Your task to perform on an android device: turn off location Image 0: 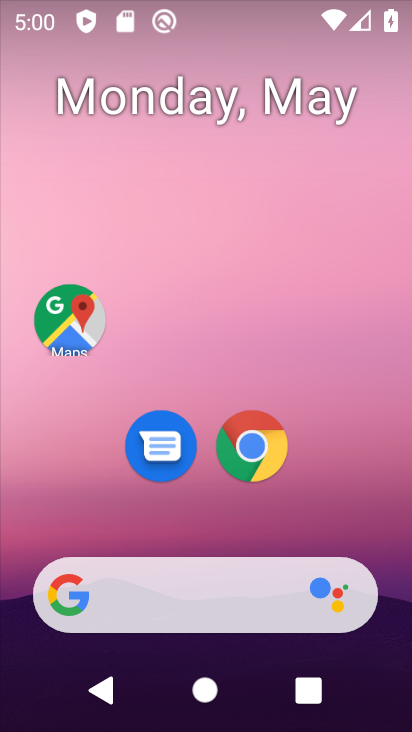
Step 0: drag from (327, 512) to (234, 89)
Your task to perform on an android device: turn off location Image 1: 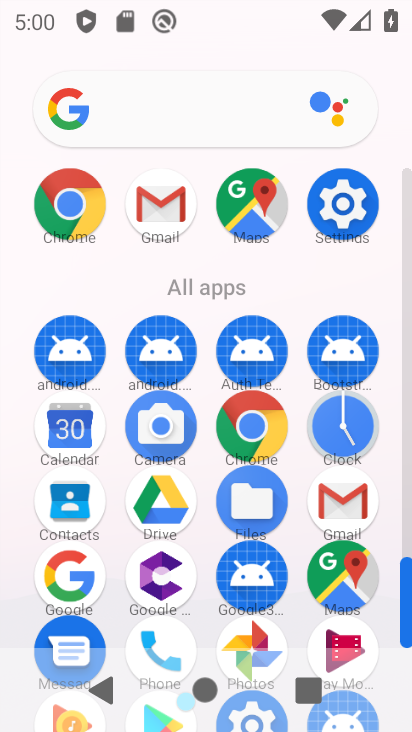
Step 1: click (335, 205)
Your task to perform on an android device: turn off location Image 2: 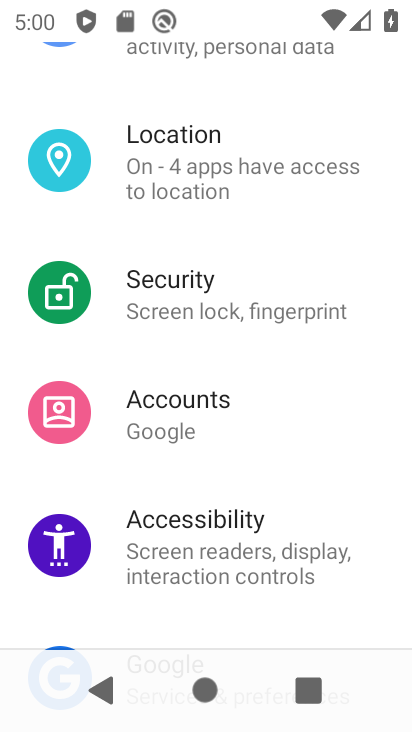
Step 2: click (172, 133)
Your task to perform on an android device: turn off location Image 3: 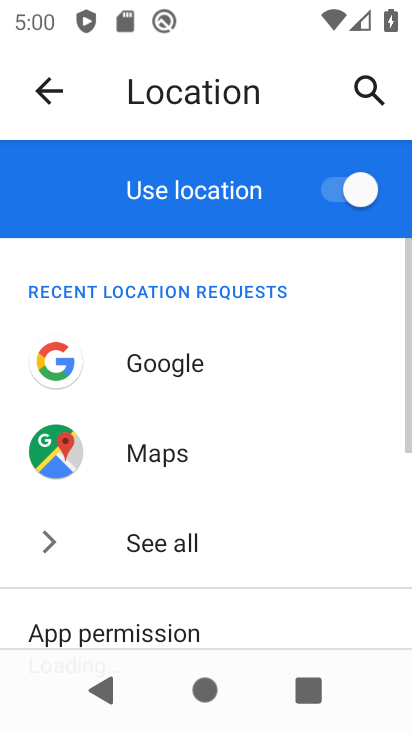
Step 3: click (353, 195)
Your task to perform on an android device: turn off location Image 4: 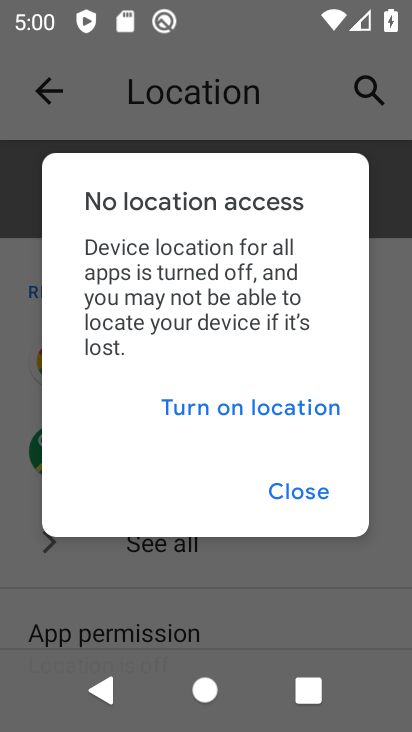
Step 4: click (297, 487)
Your task to perform on an android device: turn off location Image 5: 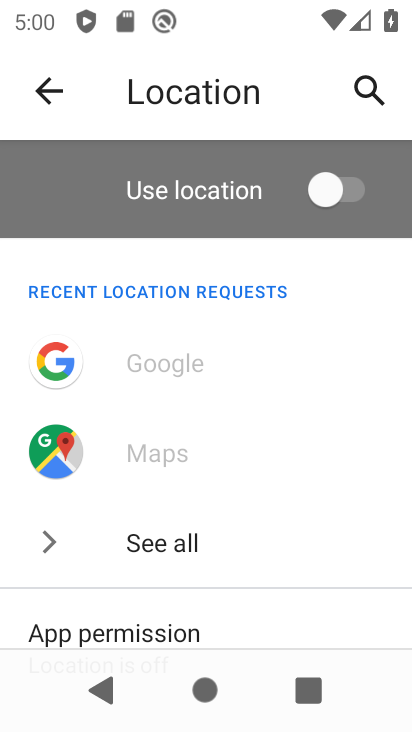
Step 5: task complete